Your task to perform on an android device: Check the weather Image 0: 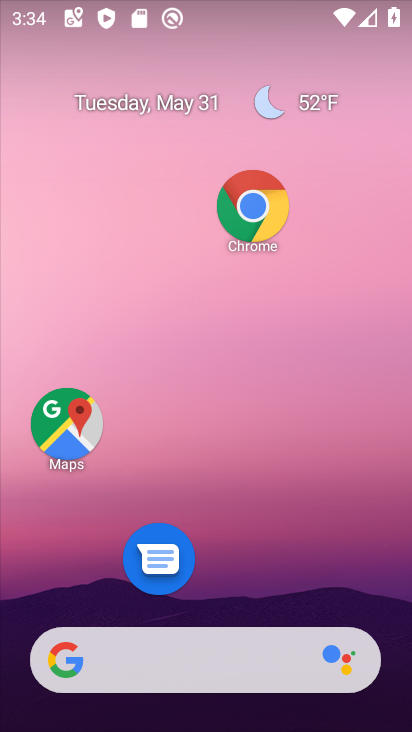
Step 0: drag from (215, 589) to (150, 147)
Your task to perform on an android device: Check the weather Image 1: 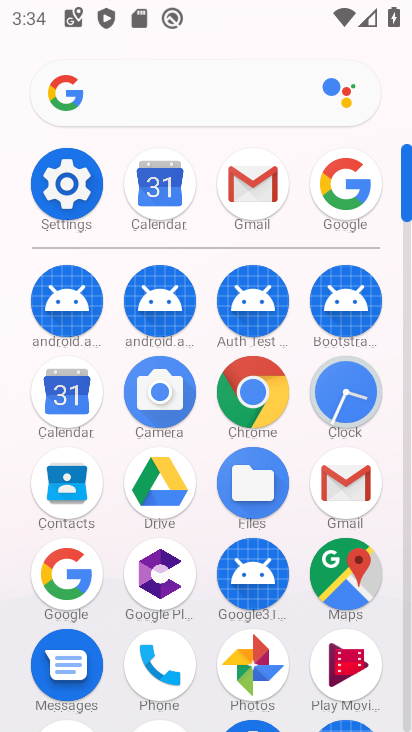
Step 1: click (51, 580)
Your task to perform on an android device: Check the weather Image 2: 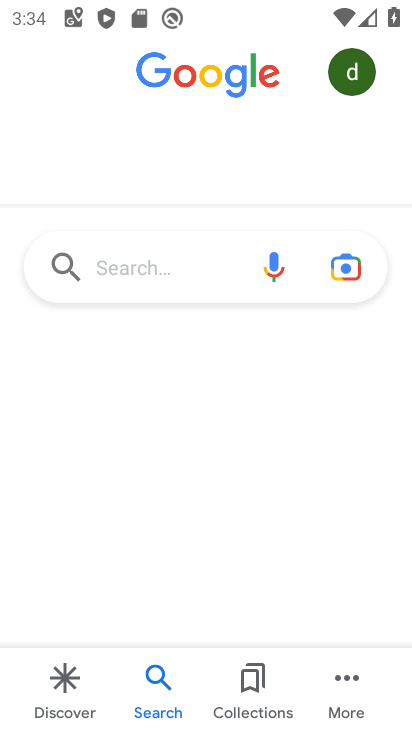
Step 2: click (195, 273)
Your task to perform on an android device: Check the weather Image 3: 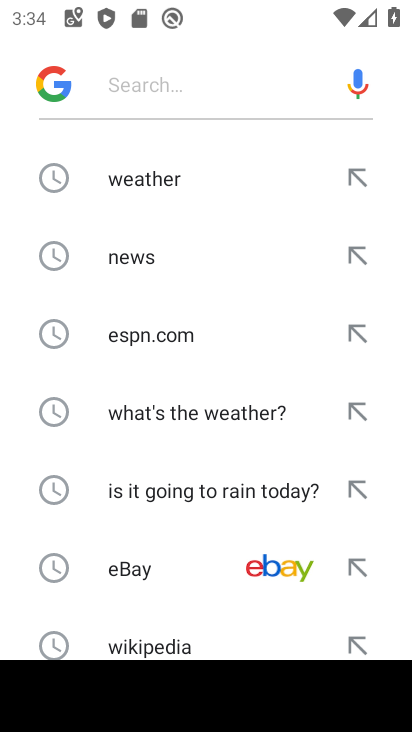
Step 3: click (141, 179)
Your task to perform on an android device: Check the weather Image 4: 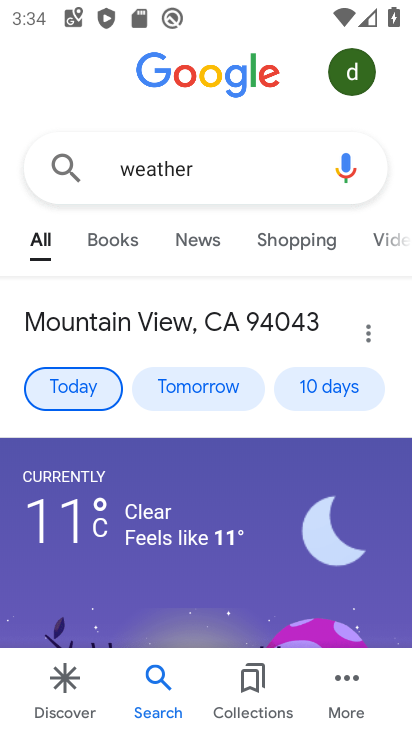
Step 4: task complete